Your task to perform on an android device: Open Google Chrome and open the bookmarks view Image 0: 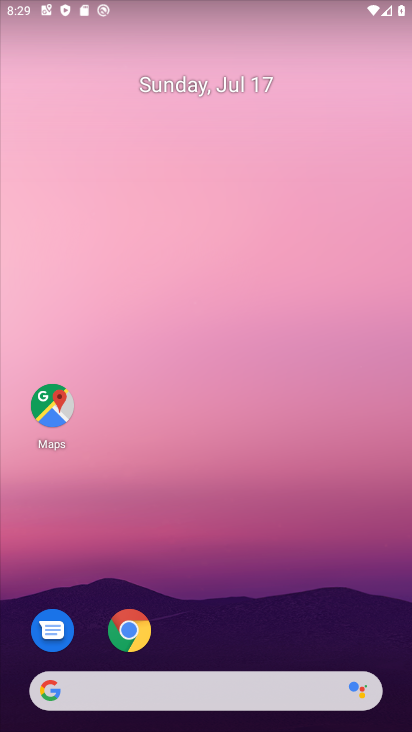
Step 0: click (109, 615)
Your task to perform on an android device: Open Google Chrome and open the bookmarks view Image 1: 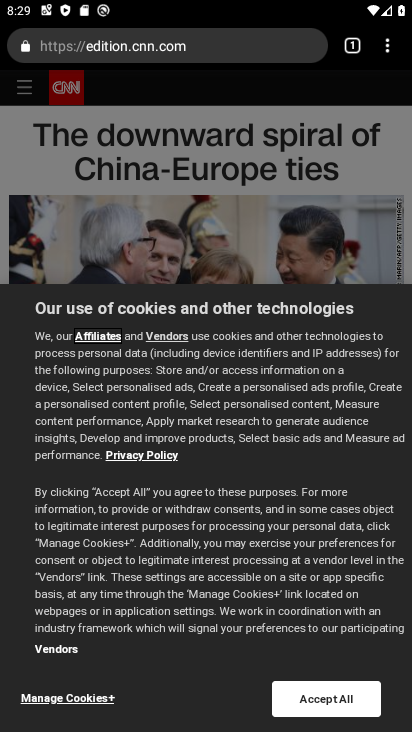
Step 1: click (387, 54)
Your task to perform on an android device: Open Google Chrome and open the bookmarks view Image 2: 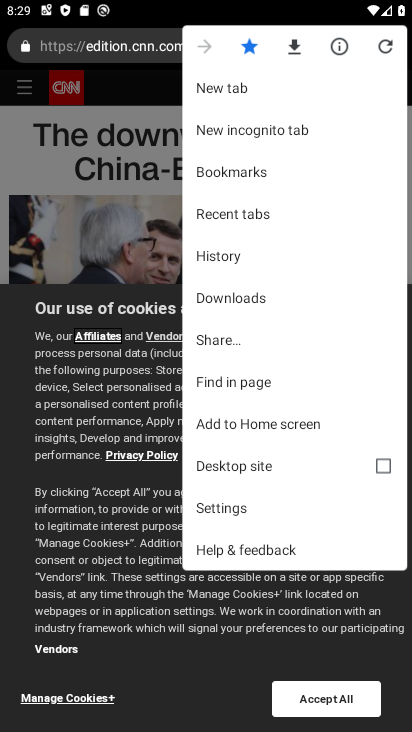
Step 2: click (257, 167)
Your task to perform on an android device: Open Google Chrome and open the bookmarks view Image 3: 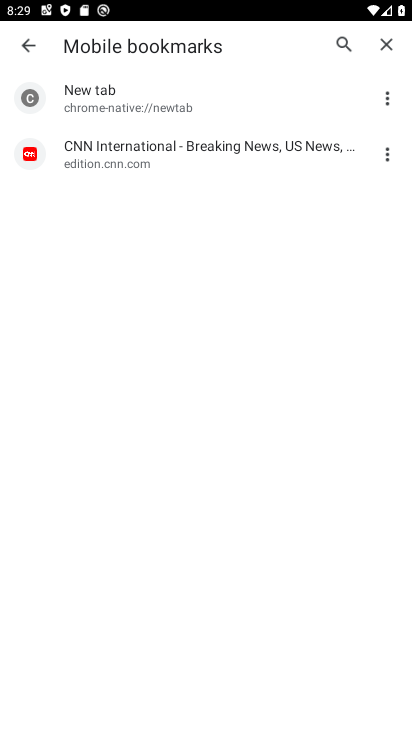
Step 3: task complete